Your task to perform on an android device: add a contact in the contacts app Image 0: 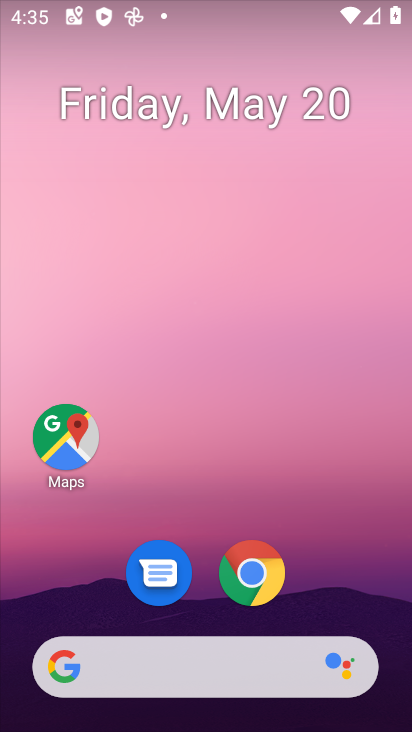
Step 0: drag from (397, 618) to (334, 3)
Your task to perform on an android device: add a contact in the contacts app Image 1: 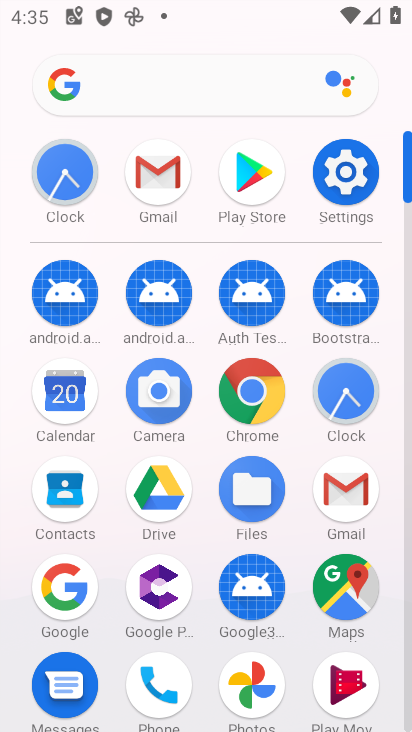
Step 1: click (409, 699)
Your task to perform on an android device: add a contact in the contacts app Image 2: 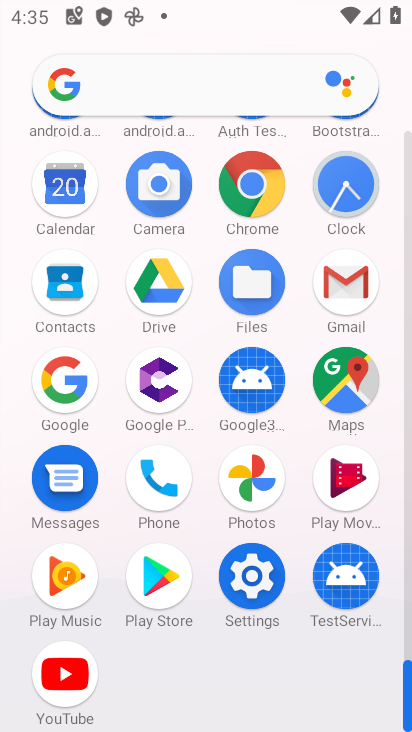
Step 2: click (67, 287)
Your task to perform on an android device: add a contact in the contacts app Image 3: 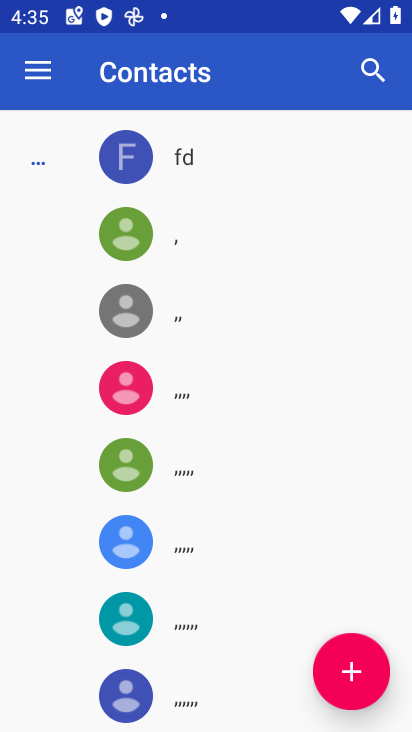
Step 3: click (348, 672)
Your task to perform on an android device: add a contact in the contacts app Image 4: 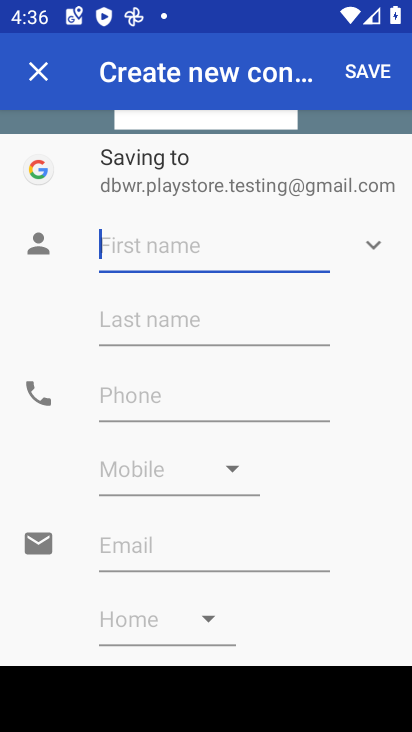
Step 4: type "rtrtyipdhphk"
Your task to perform on an android device: add a contact in the contacts app Image 5: 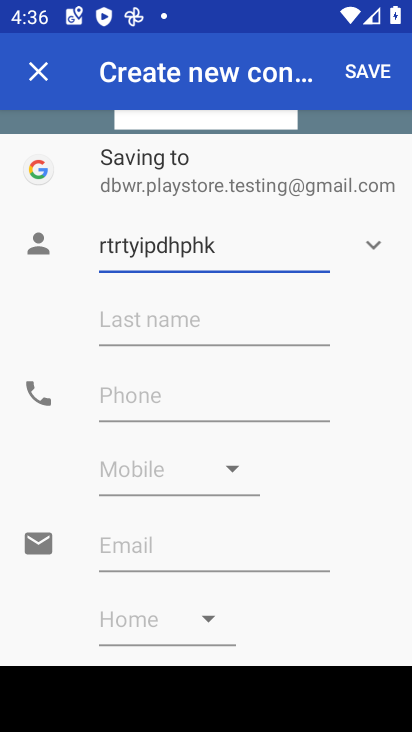
Step 5: click (153, 394)
Your task to perform on an android device: add a contact in the contacts app Image 6: 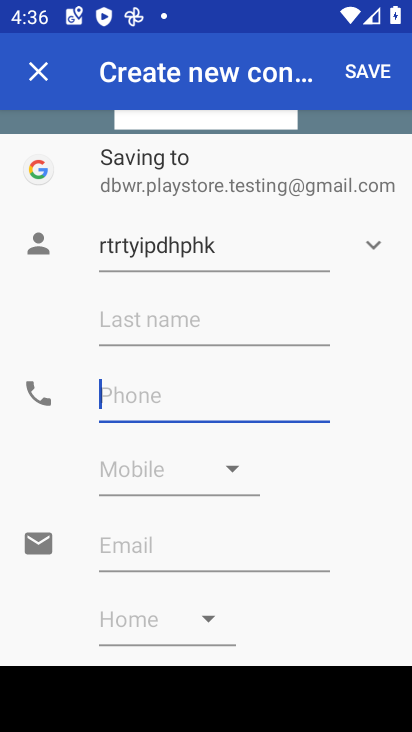
Step 6: type "690748333"
Your task to perform on an android device: add a contact in the contacts app Image 7: 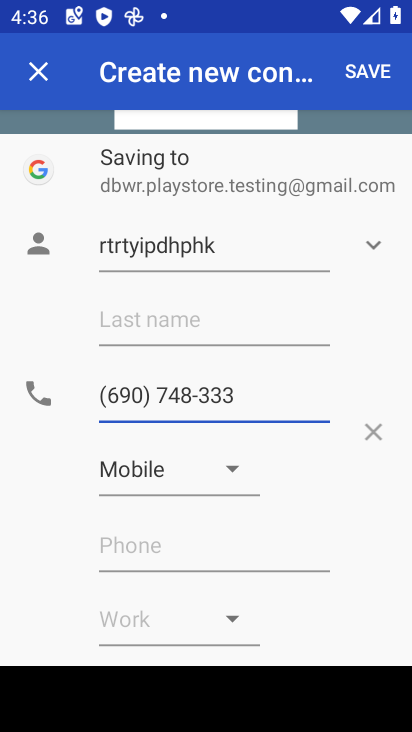
Step 7: click (232, 481)
Your task to perform on an android device: add a contact in the contacts app Image 8: 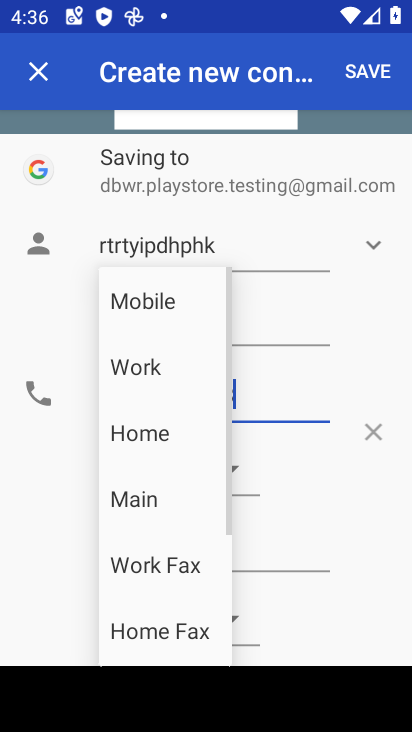
Step 8: click (137, 369)
Your task to perform on an android device: add a contact in the contacts app Image 9: 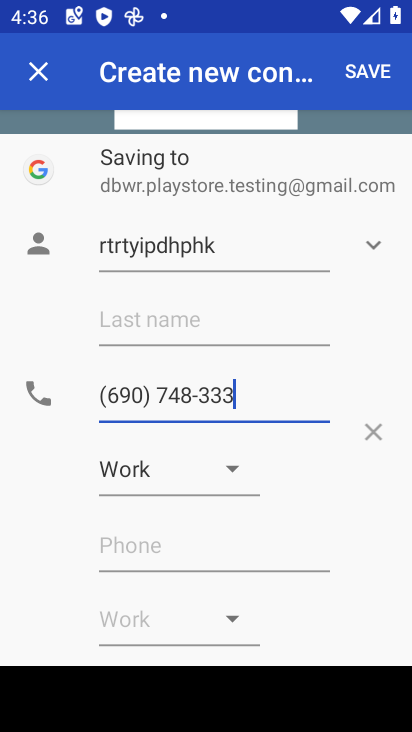
Step 9: click (367, 74)
Your task to perform on an android device: add a contact in the contacts app Image 10: 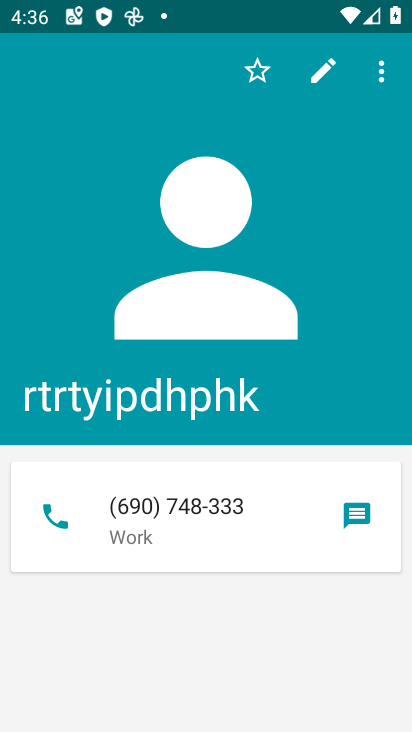
Step 10: task complete